Your task to perform on an android device: Open maps Image 0: 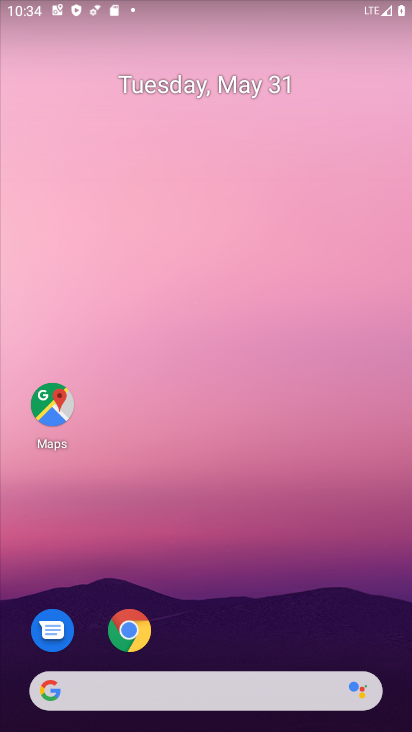
Step 0: drag from (206, 648) to (260, 218)
Your task to perform on an android device: Open maps Image 1: 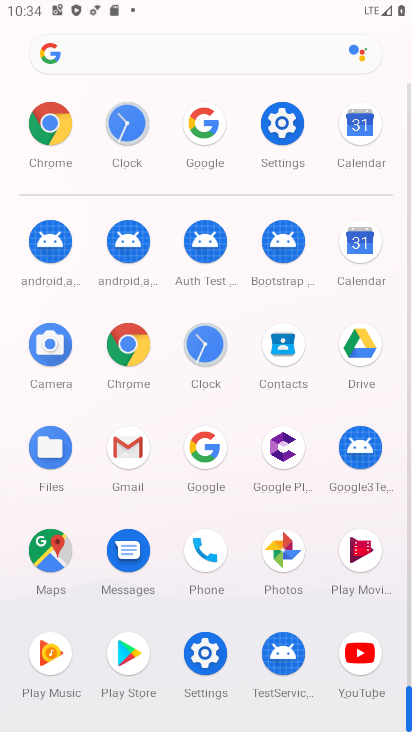
Step 1: drag from (210, 562) to (242, 341)
Your task to perform on an android device: Open maps Image 2: 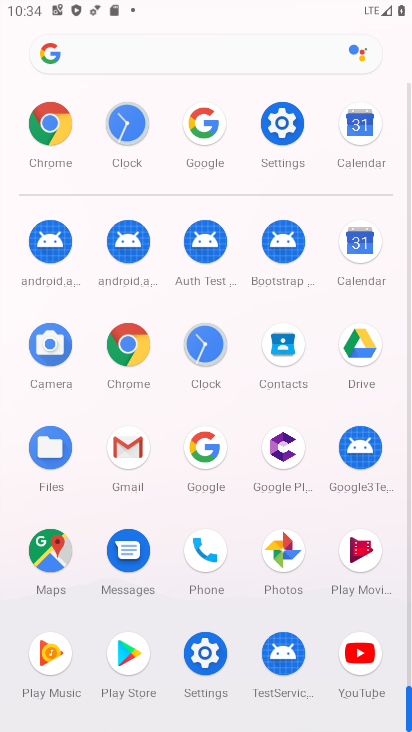
Step 2: click (52, 570)
Your task to perform on an android device: Open maps Image 3: 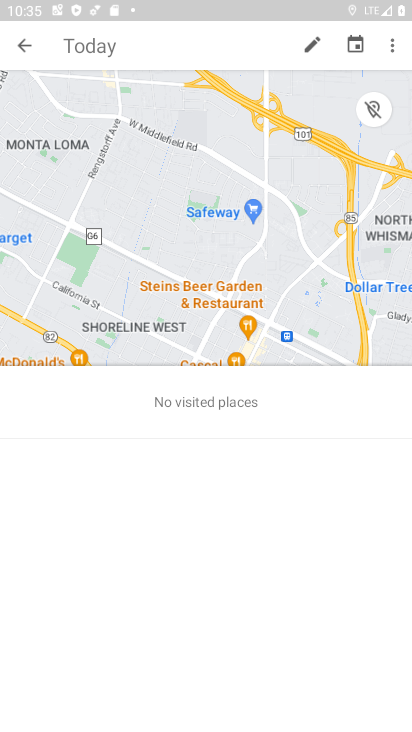
Step 3: task complete